Your task to perform on an android device: empty trash in google photos Image 0: 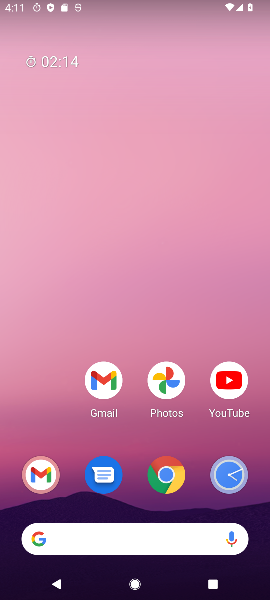
Step 0: click (106, 380)
Your task to perform on an android device: empty trash in google photos Image 1: 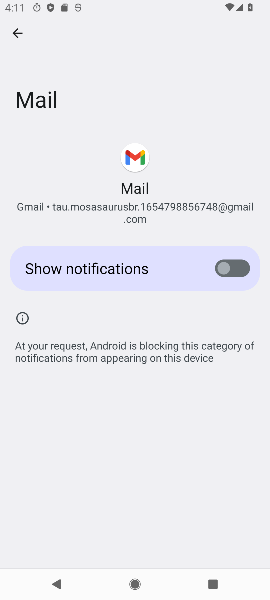
Step 1: click (20, 37)
Your task to perform on an android device: empty trash in google photos Image 2: 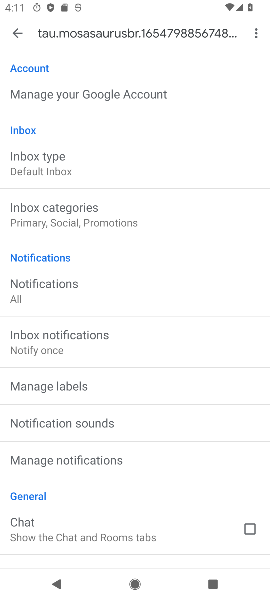
Step 2: click (20, 37)
Your task to perform on an android device: empty trash in google photos Image 3: 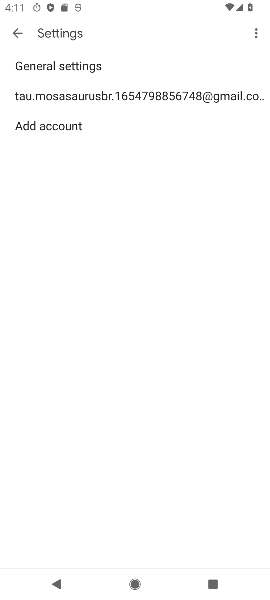
Step 3: click (20, 37)
Your task to perform on an android device: empty trash in google photos Image 4: 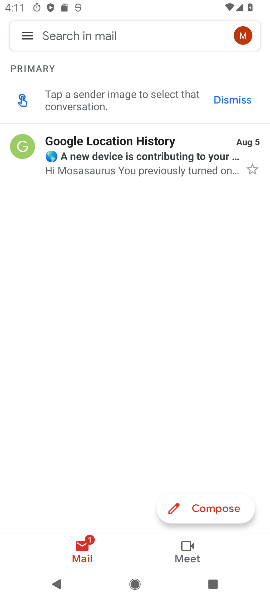
Step 4: click (20, 37)
Your task to perform on an android device: empty trash in google photos Image 5: 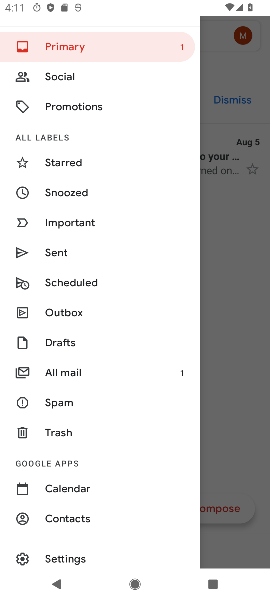
Step 5: click (67, 434)
Your task to perform on an android device: empty trash in google photos Image 6: 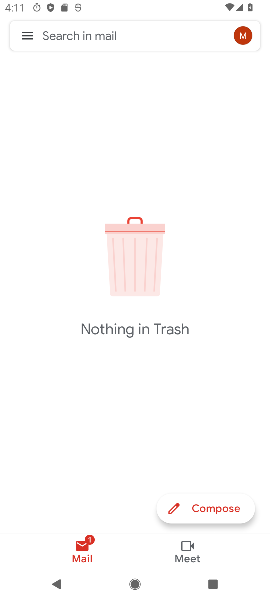
Step 6: task complete